Your task to perform on an android device: check storage Image 0: 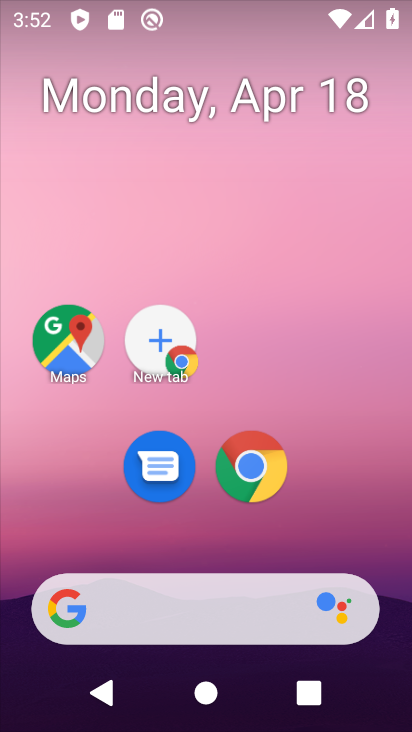
Step 0: drag from (350, 474) to (233, 13)
Your task to perform on an android device: check storage Image 1: 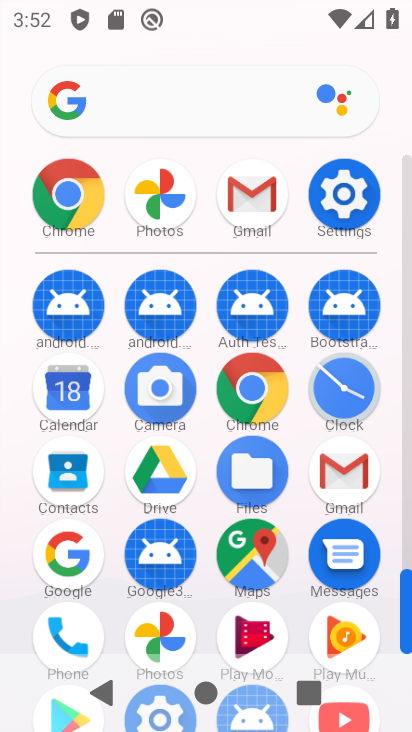
Step 1: drag from (18, 533) to (7, 258)
Your task to perform on an android device: check storage Image 2: 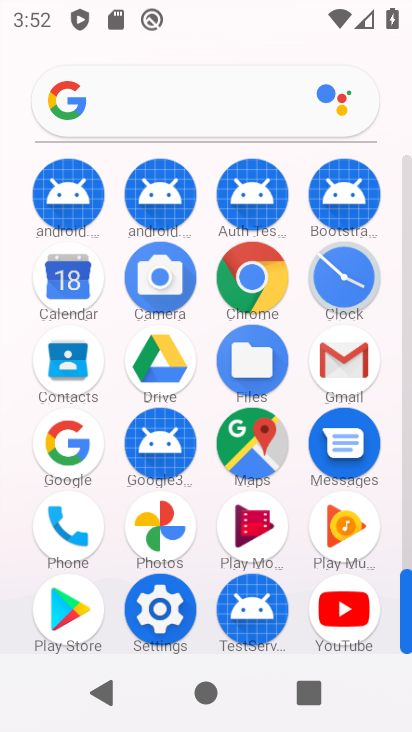
Step 2: drag from (22, 405) to (18, 175)
Your task to perform on an android device: check storage Image 3: 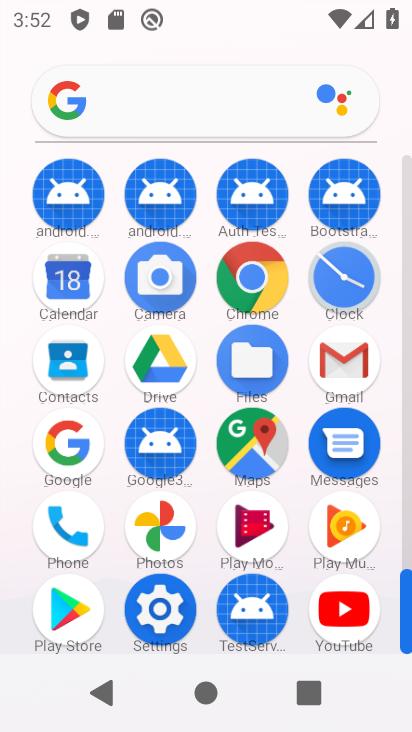
Step 3: click (159, 607)
Your task to perform on an android device: check storage Image 4: 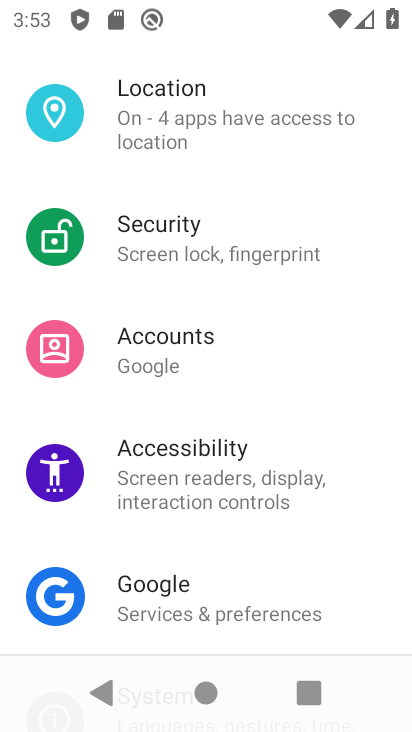
Step 4: drag from (270, 499) to (274, 144)
Your task to perform on an android device: check storage Image 5: 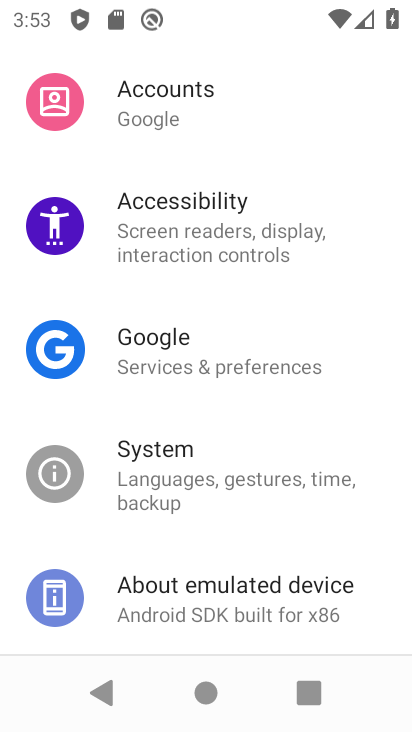
Step 5: drag from (219, 515) to (249, 139)
Your task to perform on an android device: check storage Image 6: 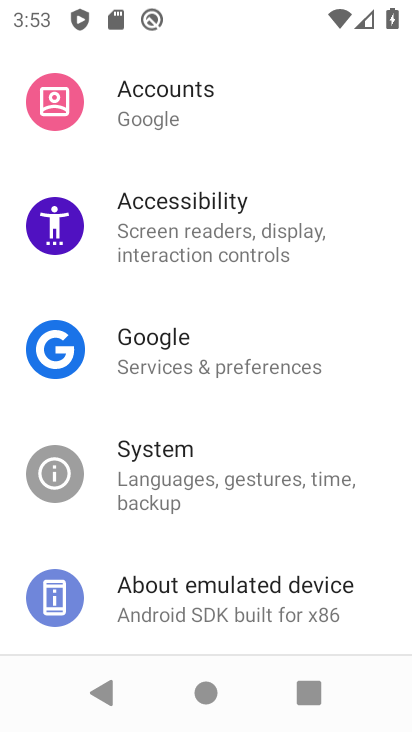
Step 6: drag from (245, 224) to (230, 472)
Your task to perform on an android device: check storage Image 7: 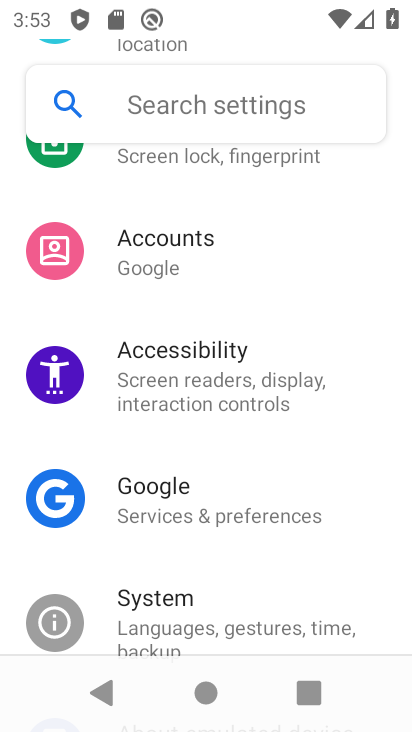
Step 7: drag from (281, 244) to (284, 533)
Your task to perform on an android device: check storage Image 8: 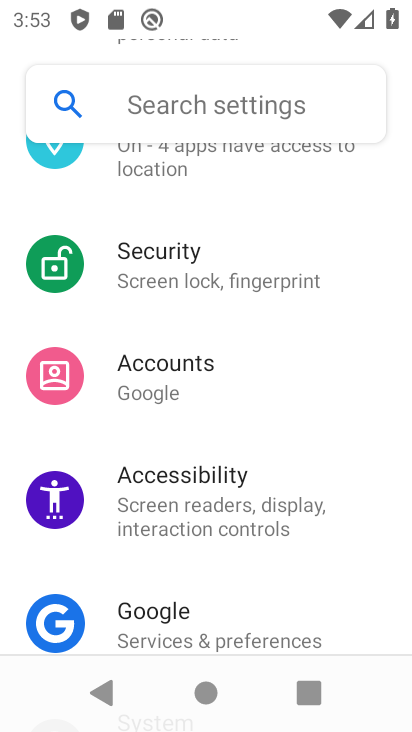
Step 8: drag from (283, 328) to (277, 574)
Your task to perform on an android device: check storage Image 9: 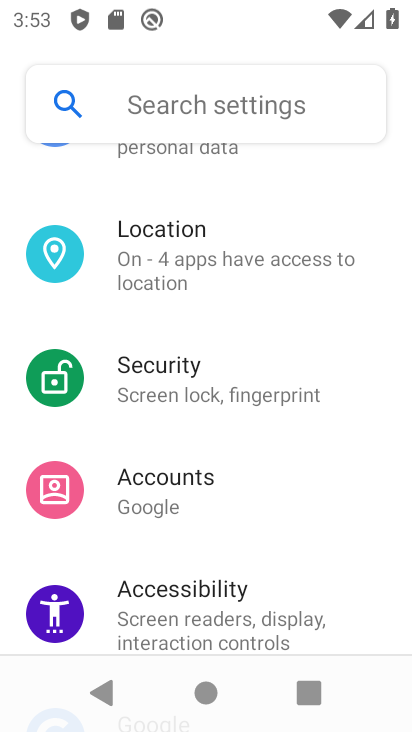
Step 9: drag from (303, 268) to (285, 638)
Your task to perform on an android device: check storage Image 10: 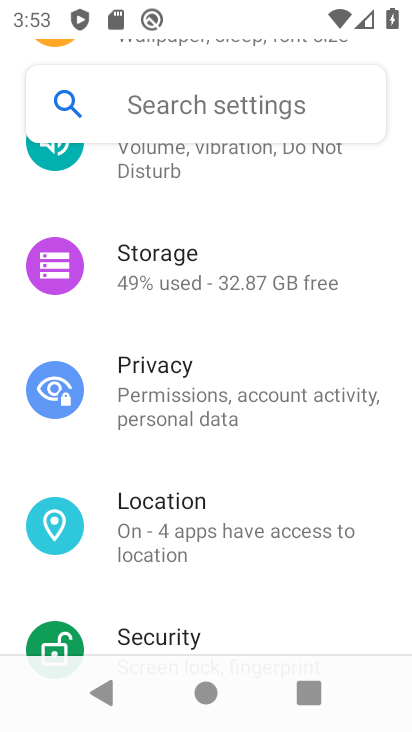
Step 10: click (225, 270)
Your task to perform on an android device: check storage Image 11: 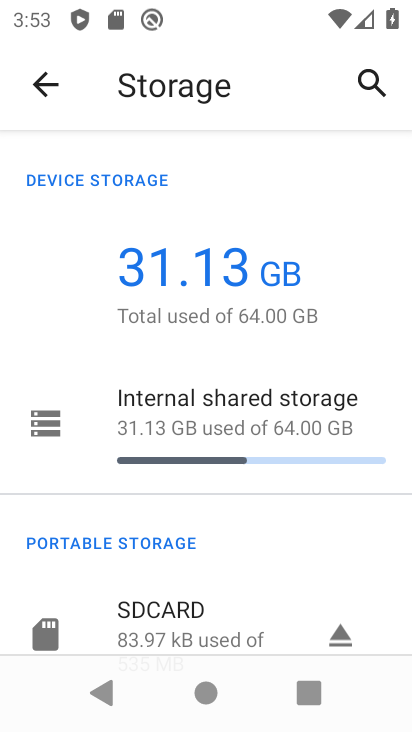
Step 11: task complete